Your task to perform on an android device: move an email to a new category in the gmail app Image 0: 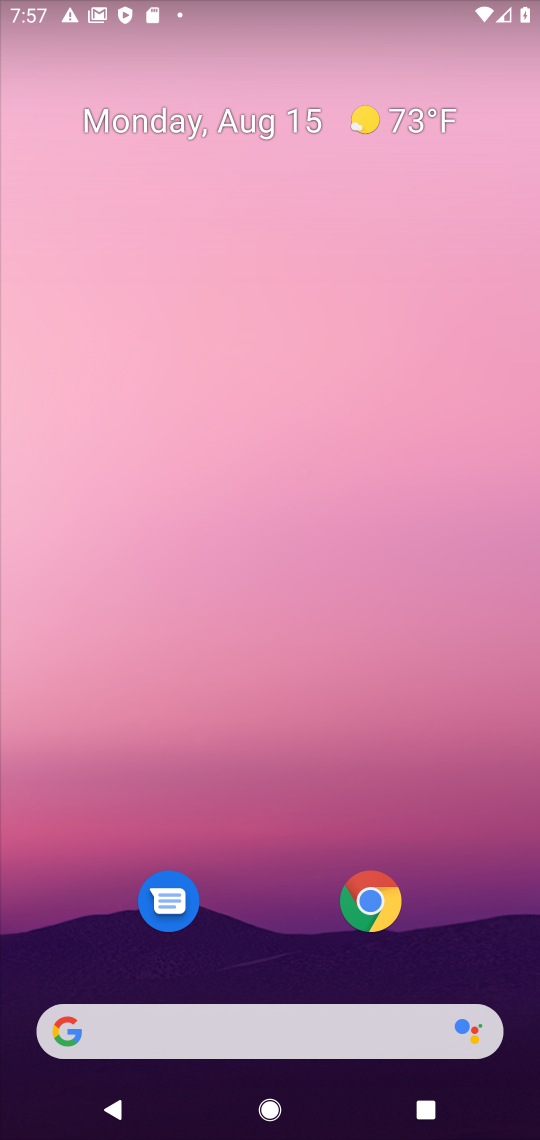
Step 0: drag from (245, 857) to (243, 25)
Your task to perform on an android device: move an email to a new category in the gmail app Image 1: 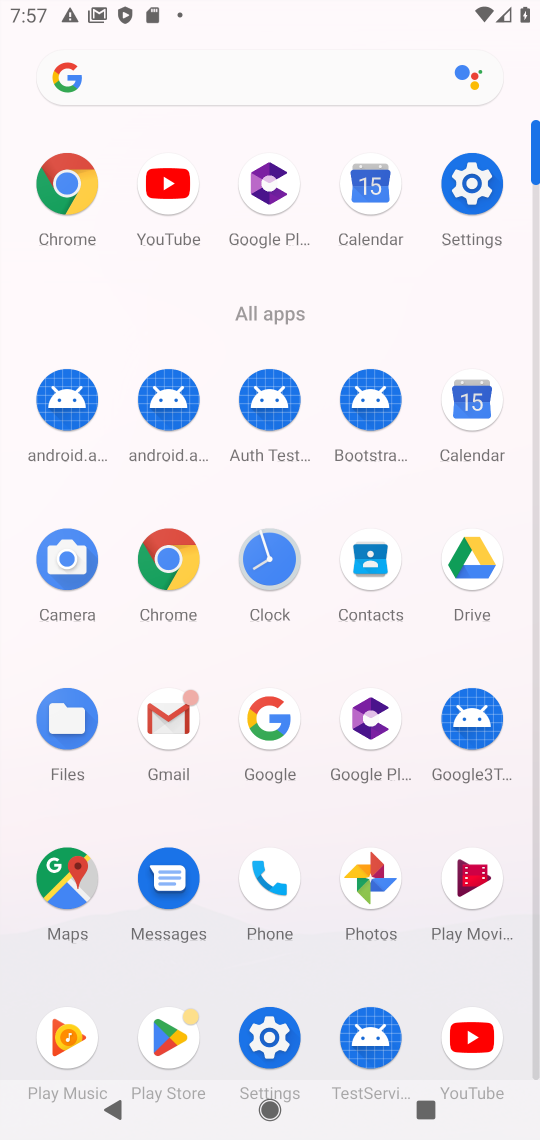
Step 1: click (184, 713)
Your task to perform on an android device: move an email to a new category in the gmail app Image 2: 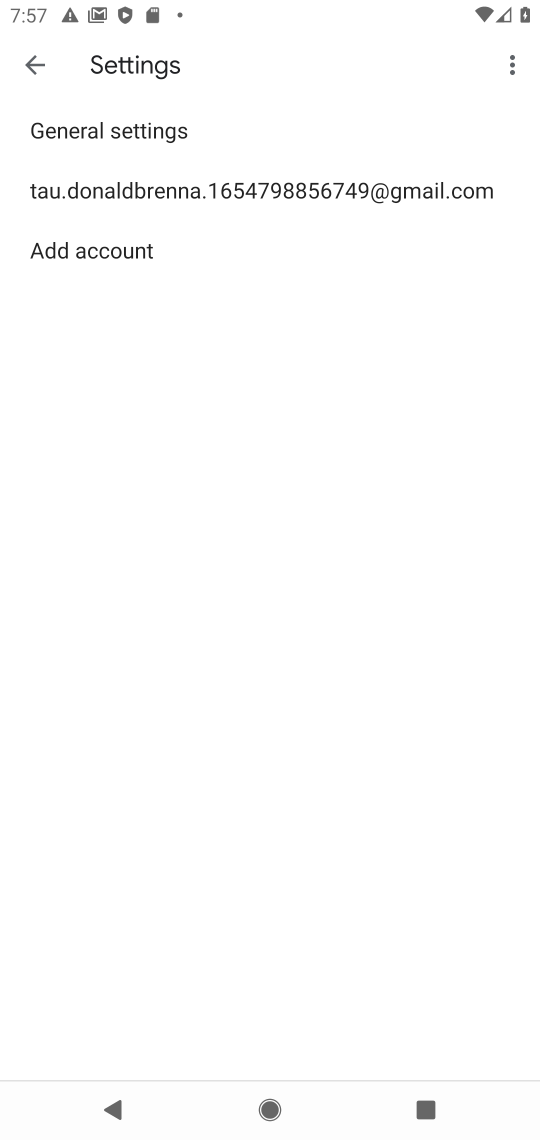
Step 2: click (29, 61)
Your task to perform on an android device: move an email to a new category in the gmail app Image 3: 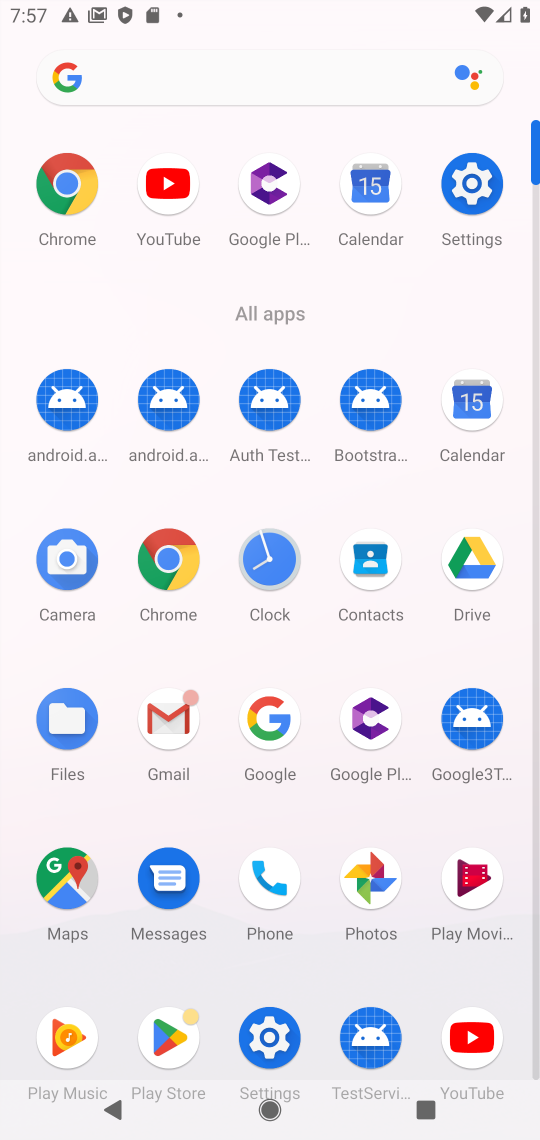
Step 3: click (131, 719)
Your task to perform on an android device: move an email to a new category in the gmail app Image 4: 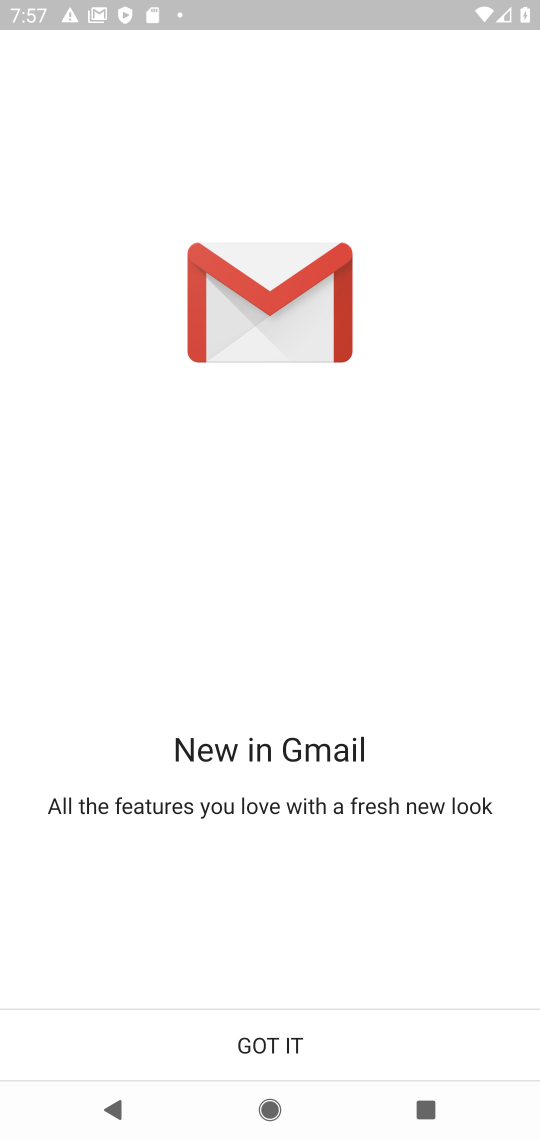
Step 4: click (322, 1040)
Your task to perform on an android device: move an email to a new category in the gmail app Image 5: 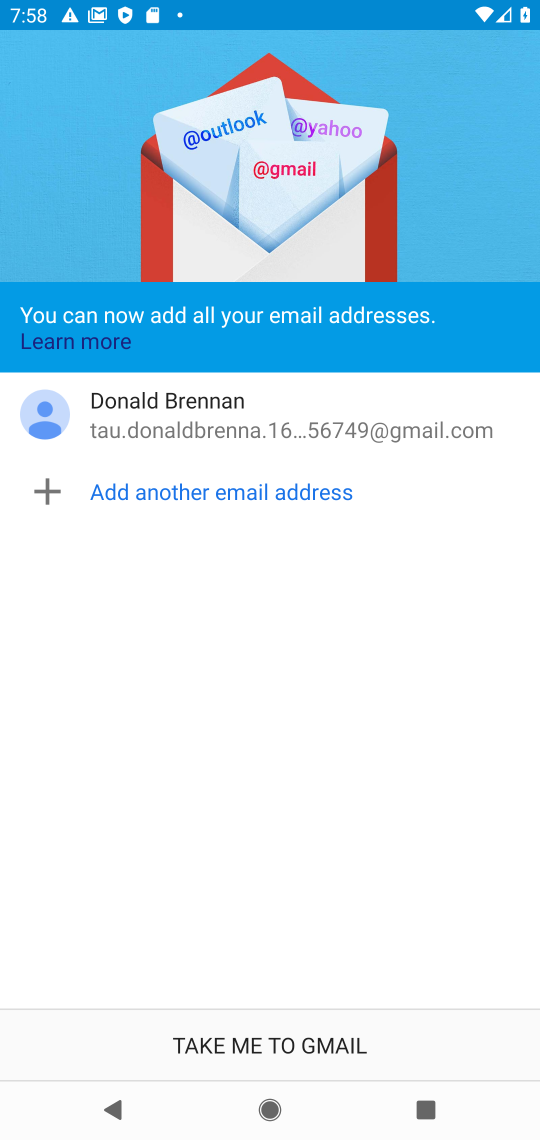
Step 5: click (320, 1042)
Your task to perform on an android device: move an email to a new category in the gmail app Image 6: 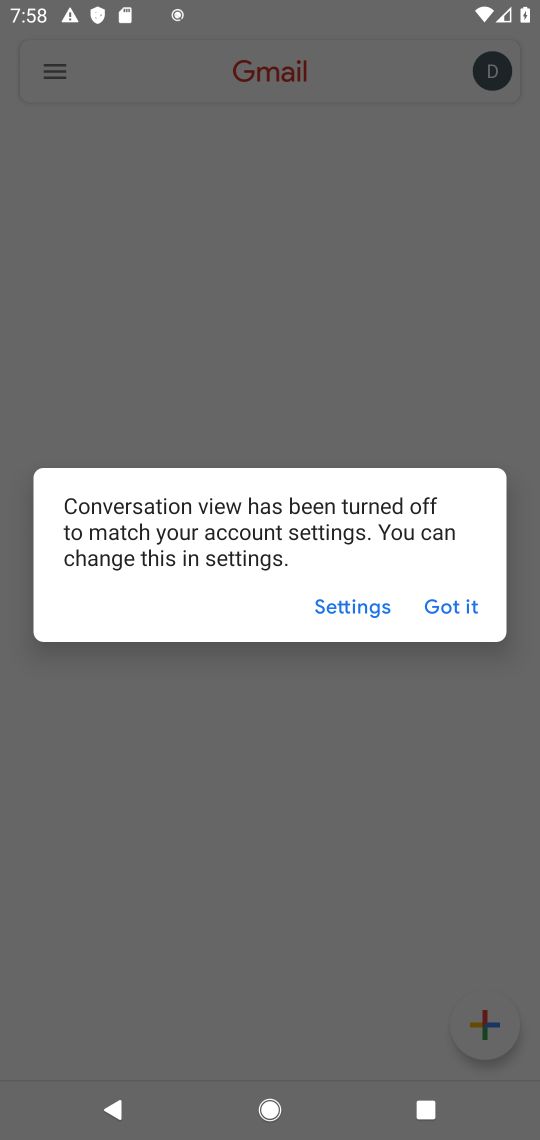
Step 6: click (446, 599)
Your task to perform on an android device: move an email to a new category in the gmail app Image 7: 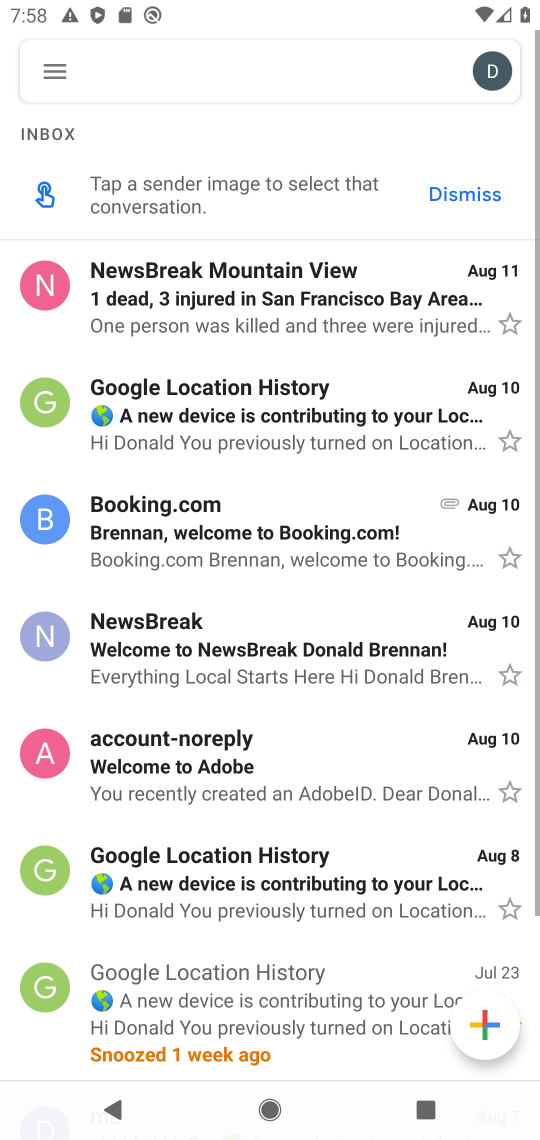
Step 7: click (54, 294)
Your task to perform on an android device: move an email to a new category in the gmail app Image 8: 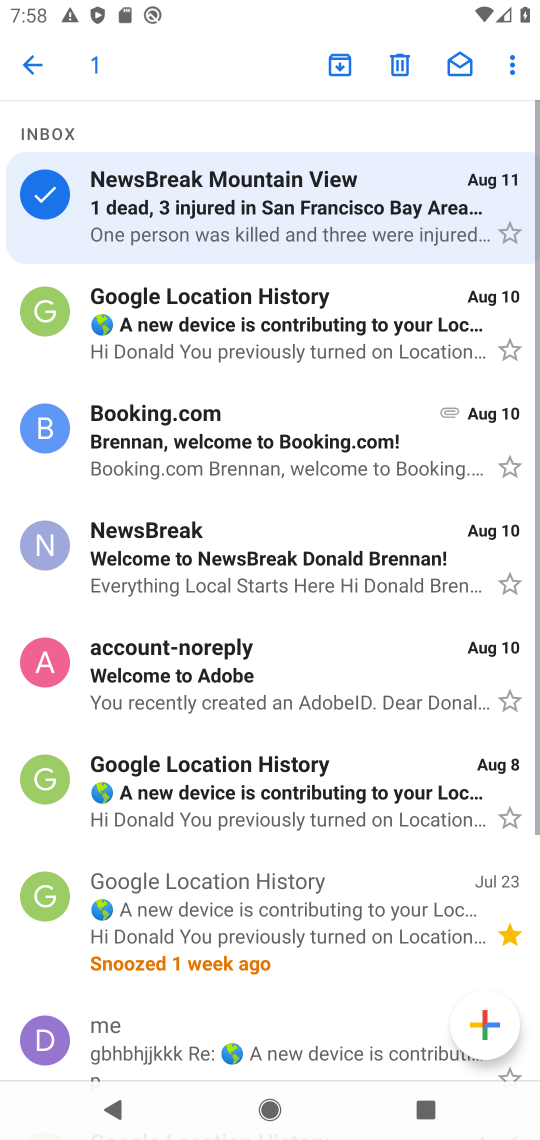
Step 8: click (512, 57)
Your task to perform on an android device: move an email to a new category in the gmail app Image 9: 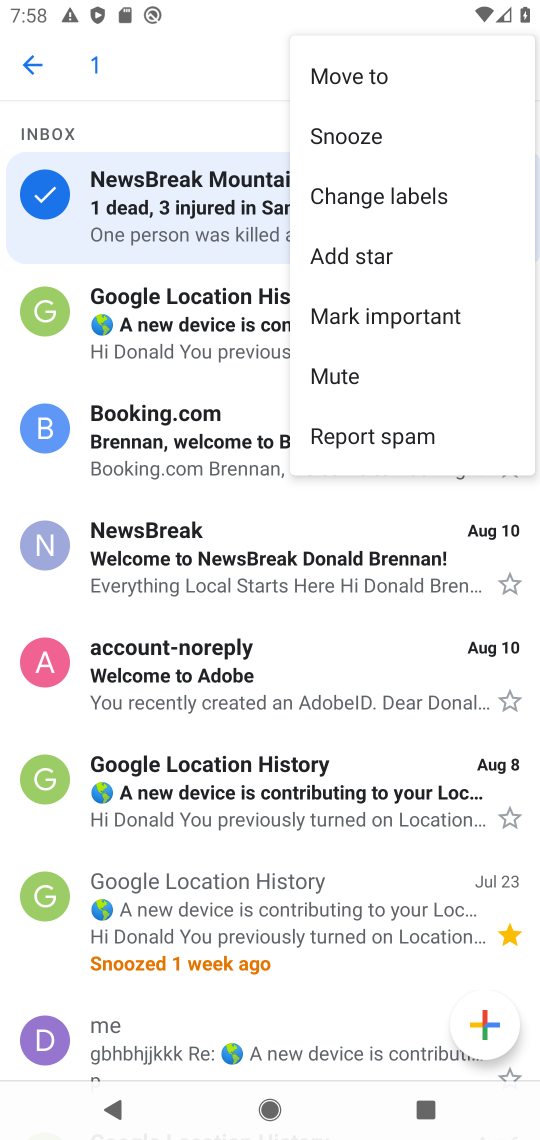
Step 9: click (358, 69)
Your task to perform on an android device: move an email to a new category in the gmail app Image 10: 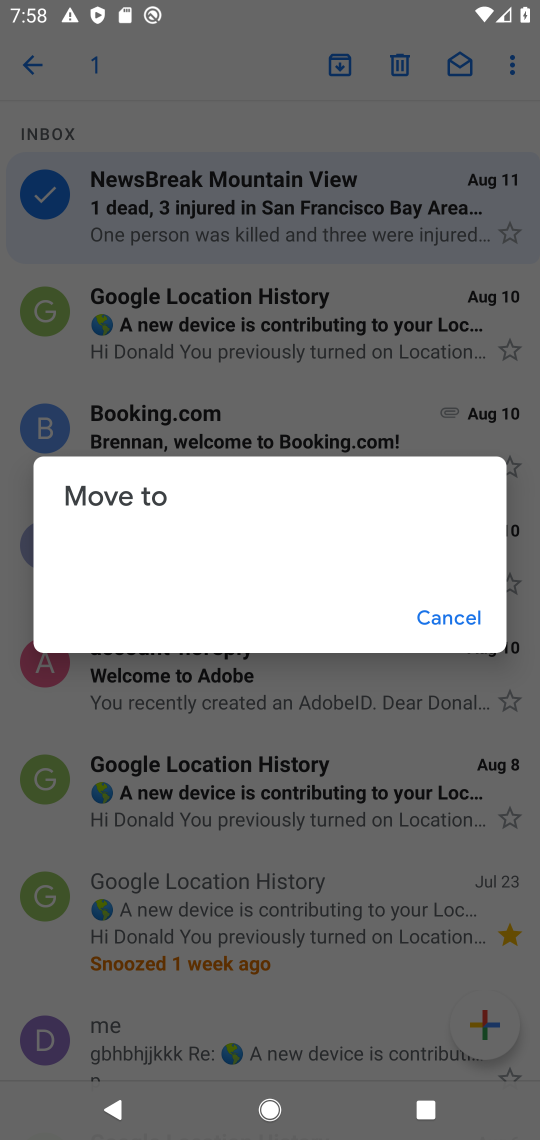
Step 10: click (445, 619)
Your task to perform on an android device: move an email to a new category in the gmail app Image 11: 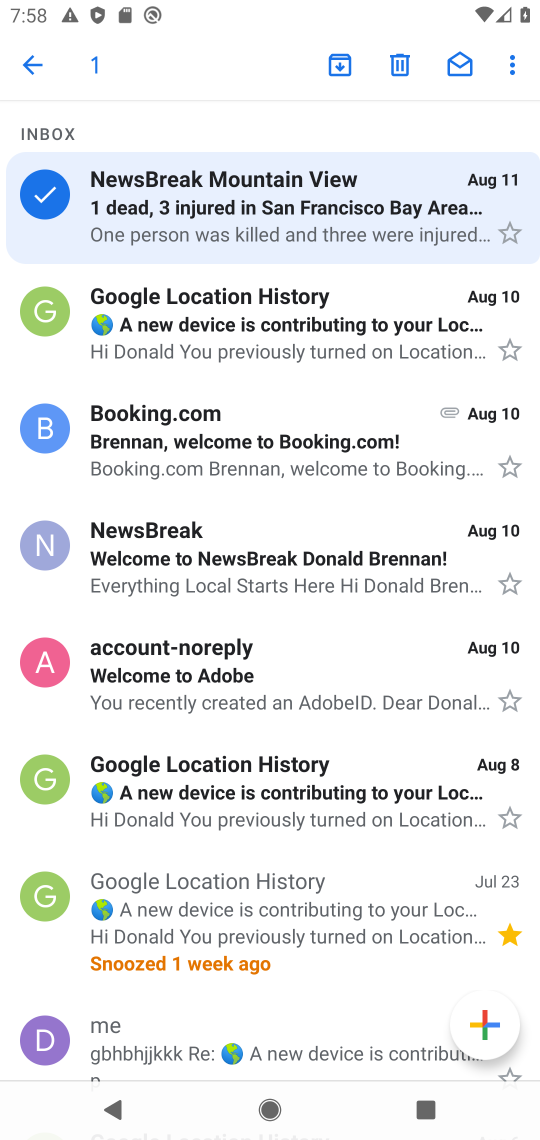
Step 11: click (506, 70)
Your task to perform on an android device: move an email to a new category in the gmail app Image 12: 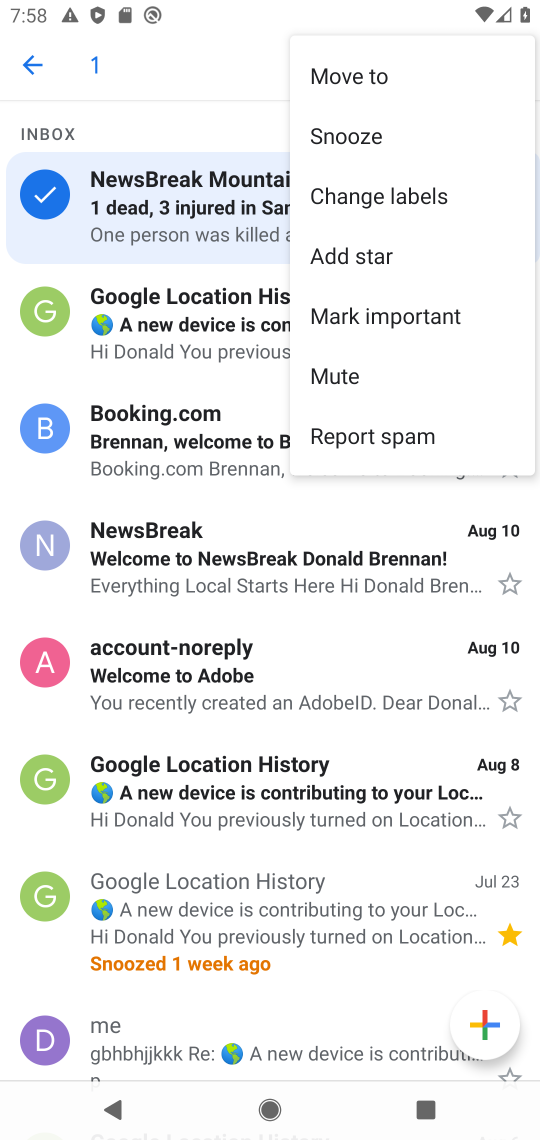
Step 12: click (385, 198)
Your task to perform on an android device: move an email to a new category in the gmail app Image 13: 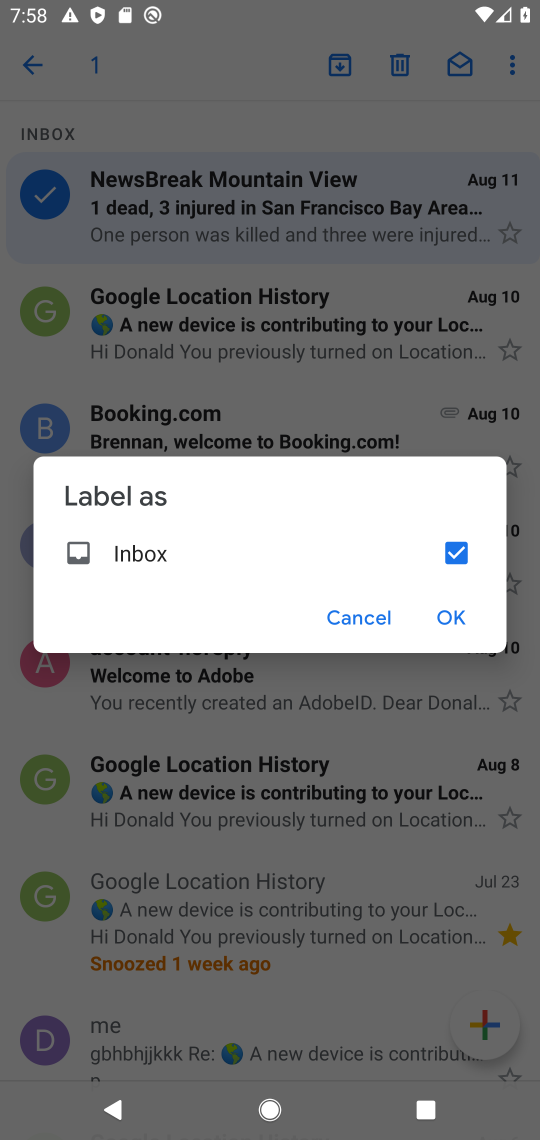
Step 13: click (447, 547)
Your task to perform on an android device: move an email to a new category in the gmail app Image 14: 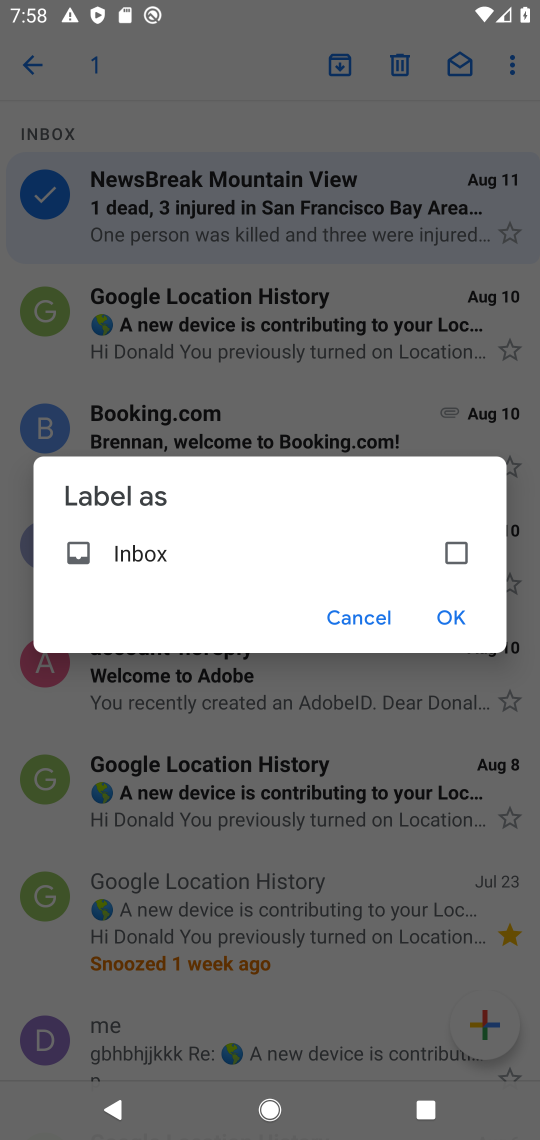
Step 14: click (447, 614)
Your task to perform on an android device: move an email to a new category in the gmail app Image 15: 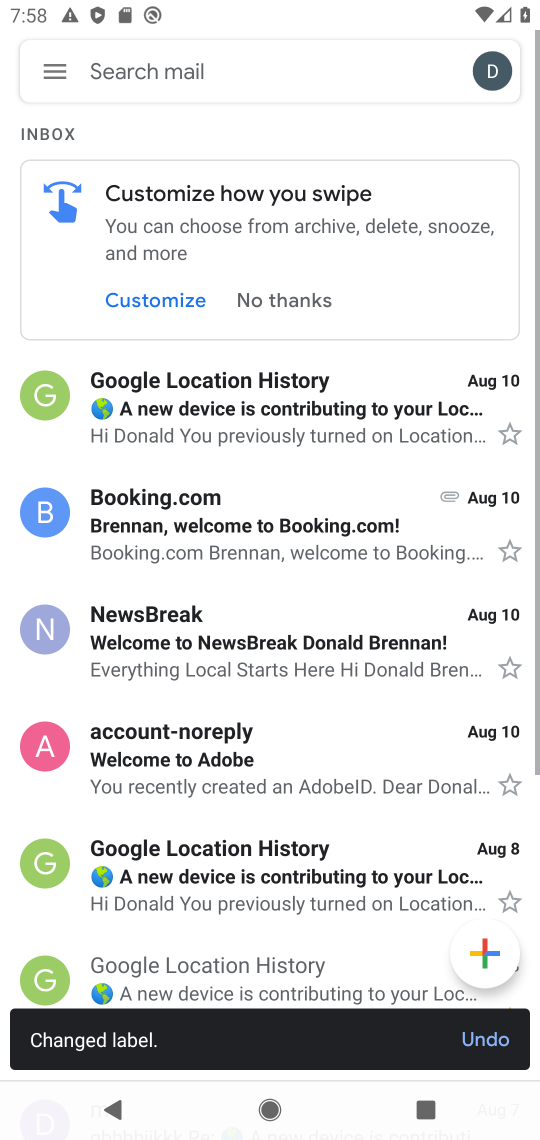
Step 15: task complete